Your task to perform on an android device: View the shopping cart on bestbuy. Search for dell xps on bestbuy, select the first entry, and add it to the cart. Image 0: 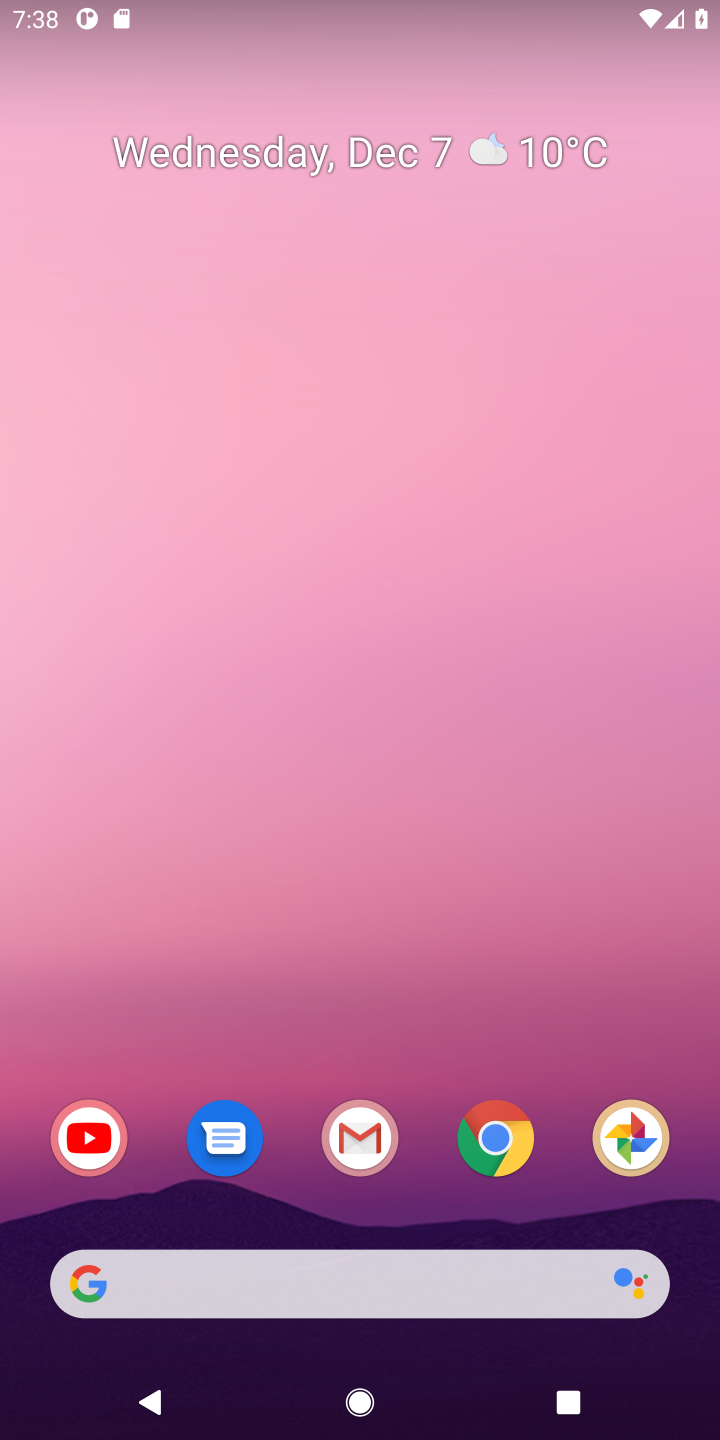
Step 0: press home button
Your task to perform on an android device: View the shopping cart on bestbuy. Search for dell xps on bestbuy, select the first entry, and add it to the cart. Image 1: 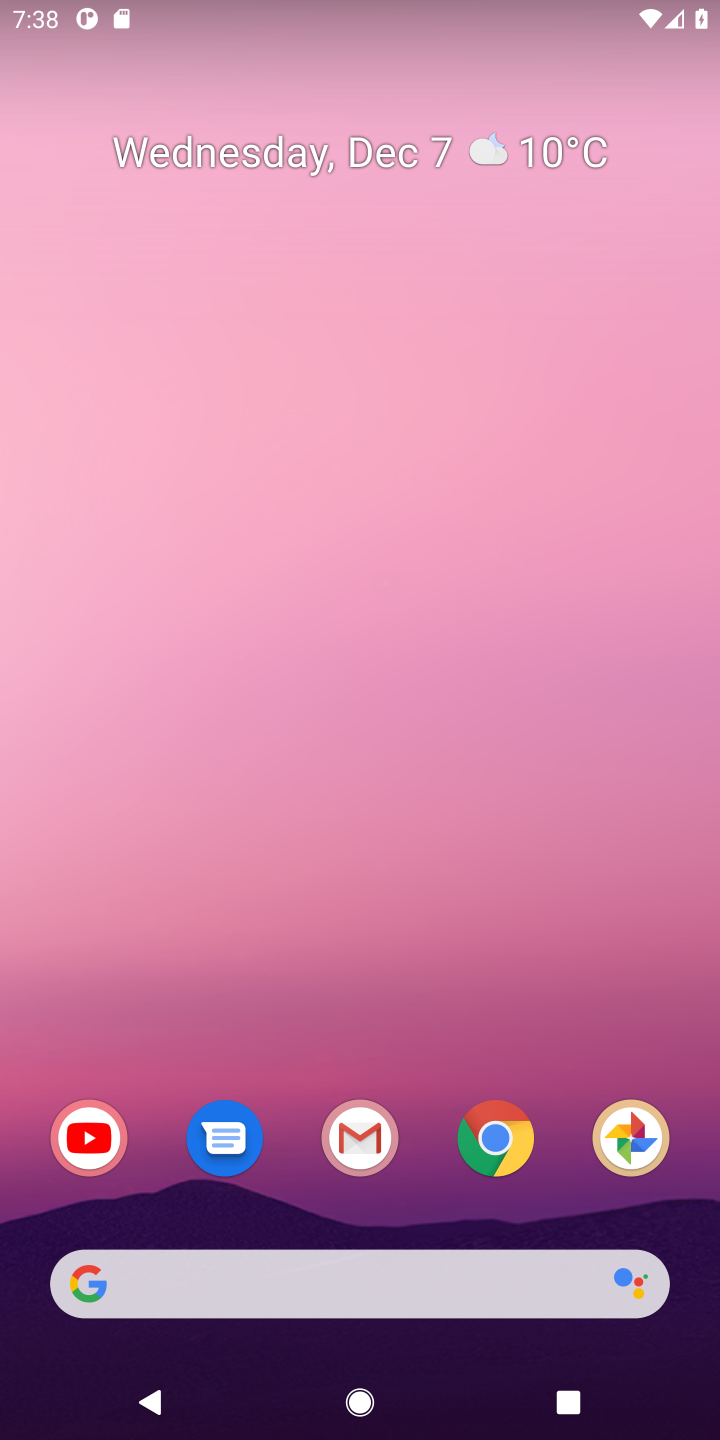
Step 1: click (247, 1277)
Your task to perform on an android device: View the shopping cart on bestbuy. Search for dell xps on bestbuy, select the first entry, and add it to the cart. Image 2: 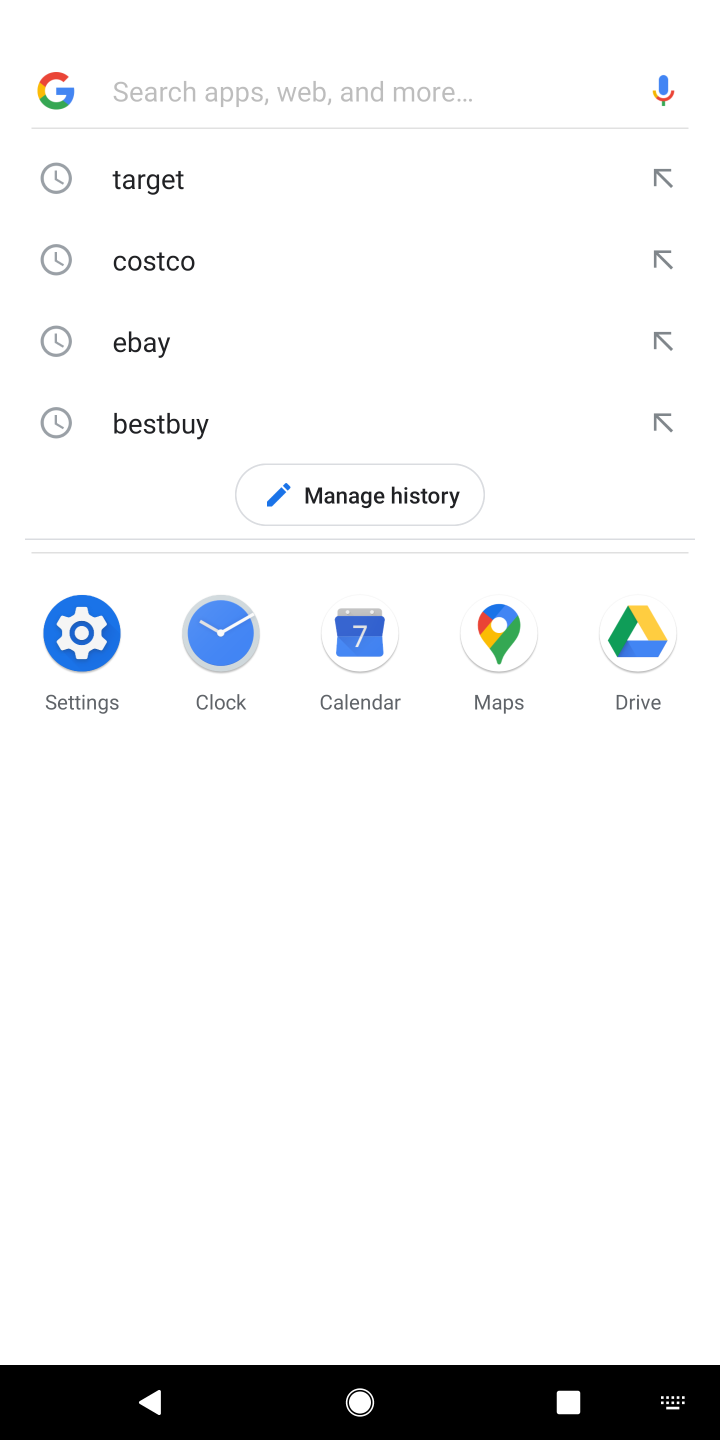
Step 2: type "bestbuy"
Your task to perform on an android device: View the shopping cart on bestbuy. Search for dell xps on bestbuy, select the first entry, and add it to the cart. Image 3: 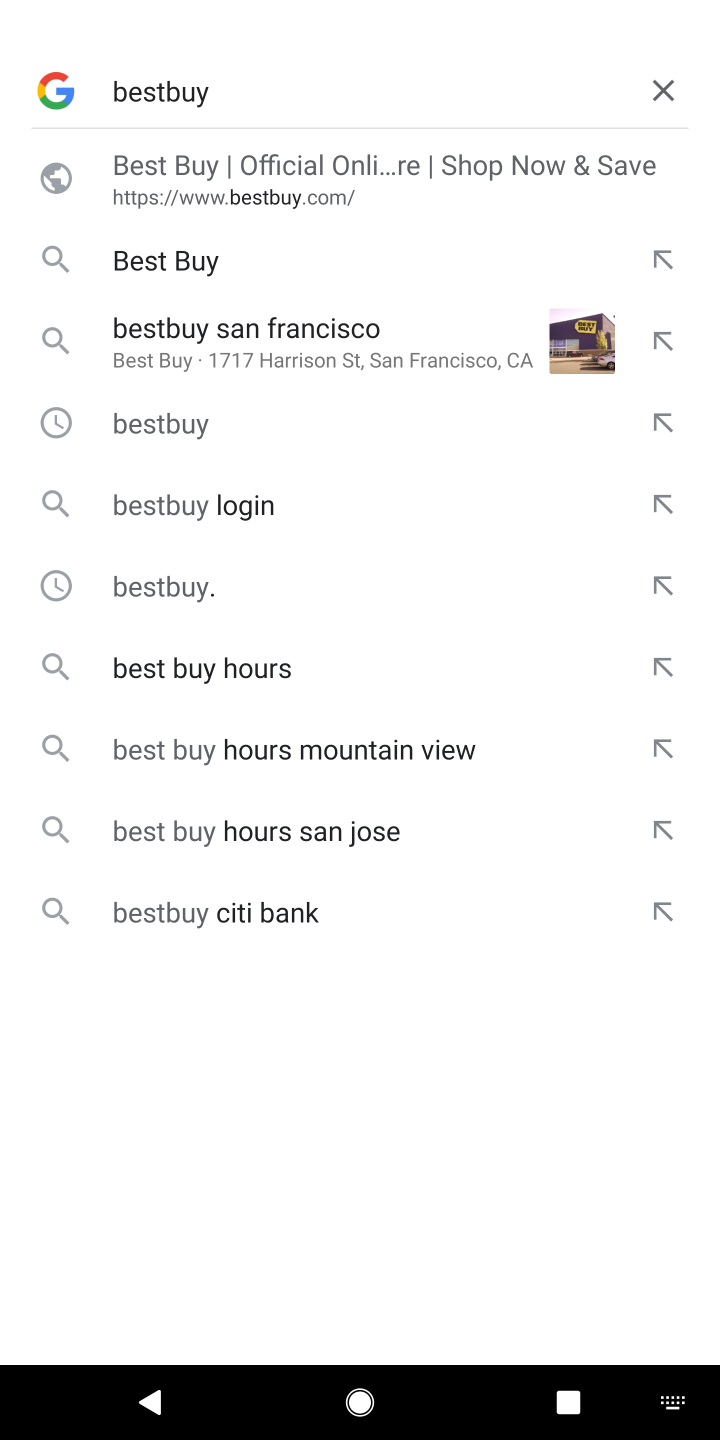
Step 3: press enter
Your task to perform on an android device: View the shopping cart on bestbuy. Search for dell xps on bestbuy, select the first entry, and add it to the cart. Image 4: 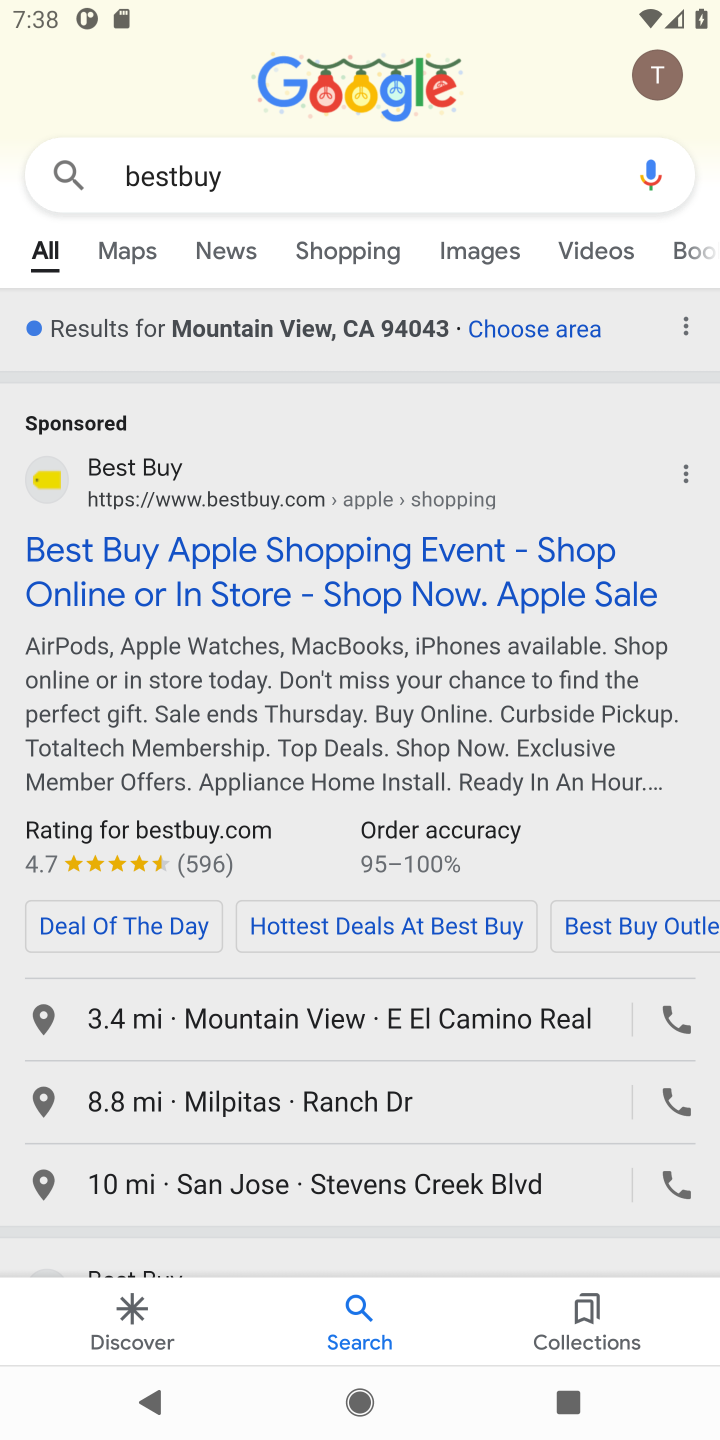
Step 4: click (291, 582)
Your task to perform on an android device: View the shopping cart on bestbuy. Search for dell xps on bestbuy, select the first entry, and add it to the cart. Image 5: 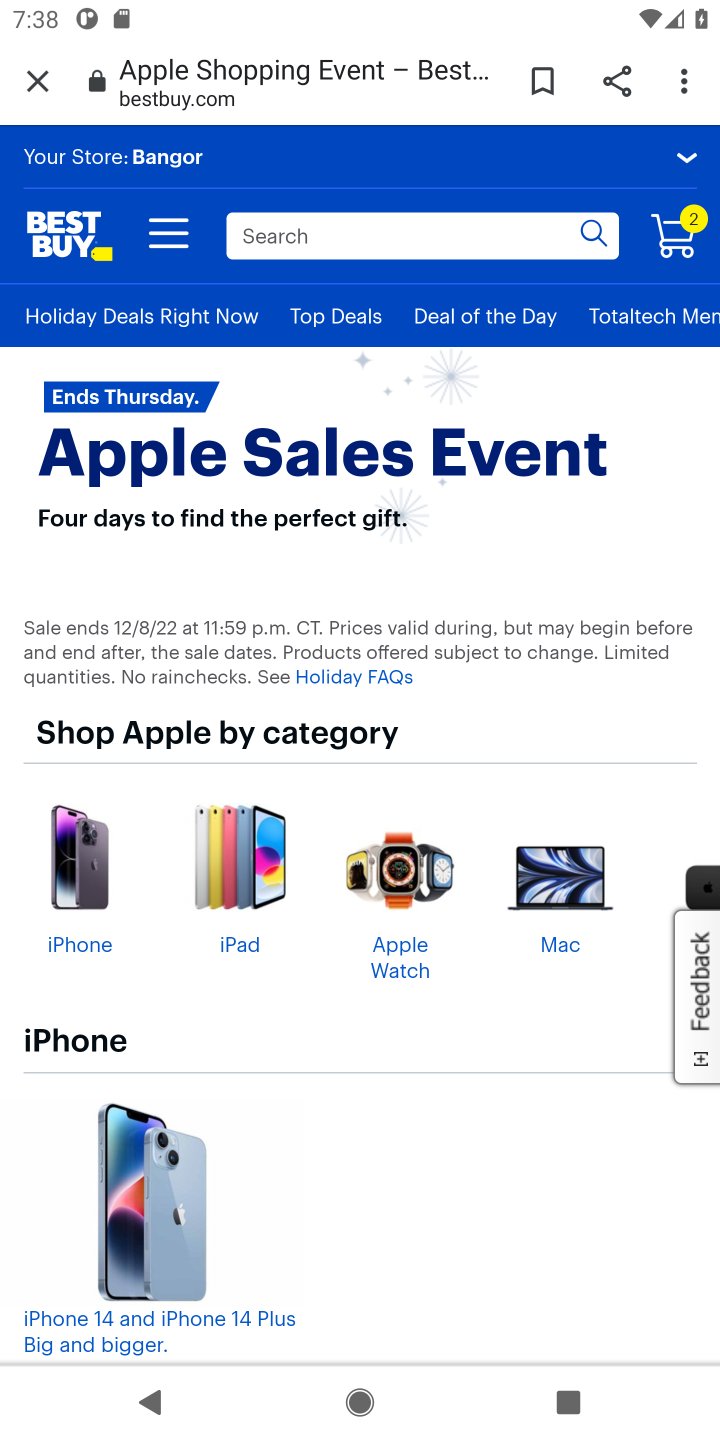
Step 5: click (671, 232)
Your task to perform on an android device: View the shopping cart on bestbuy. Search for dell xps on bestbuy, select the first entry, and add it to the cart. Image 6: 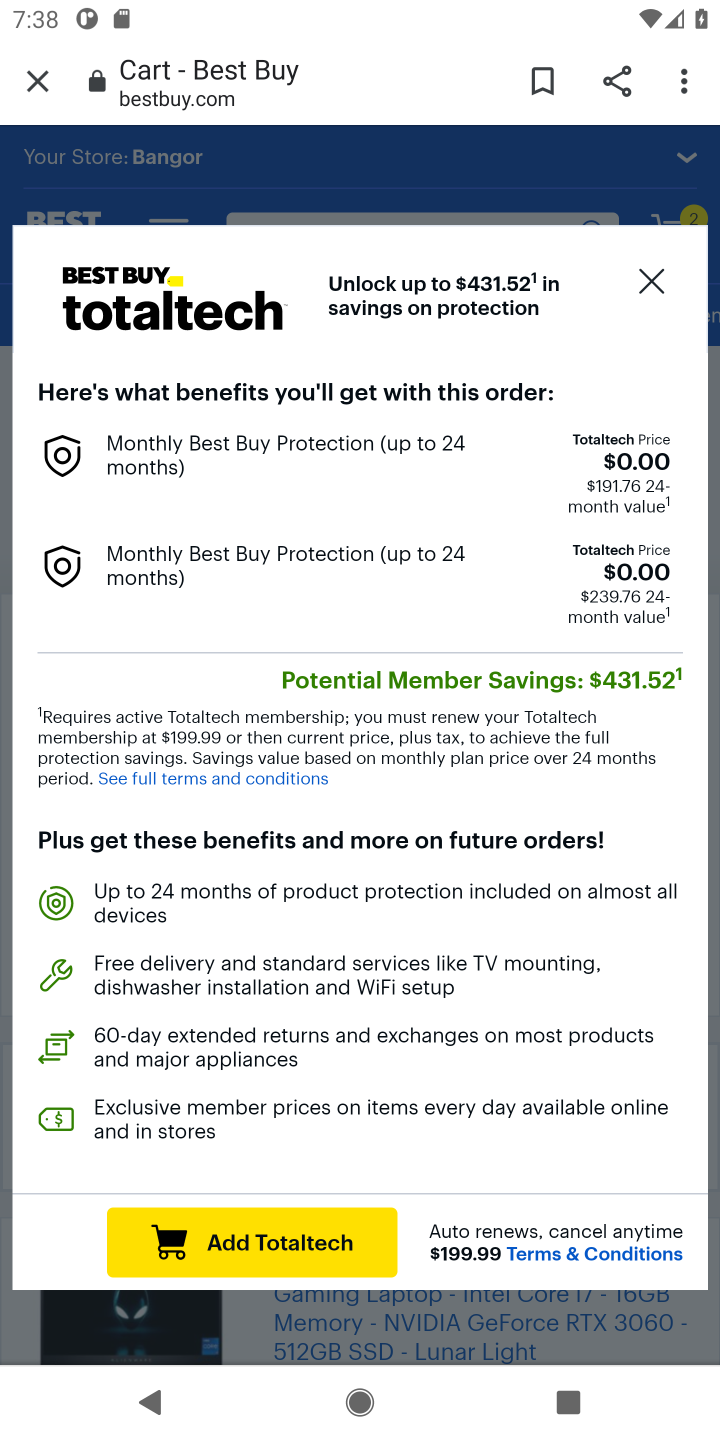
Step 6: click (651, 280)
Your task to perform on an android device: View the shopping cart on bestbuy. Search for dell xps on bestbuy, select the first entry, and add it to the cart. Image 7: 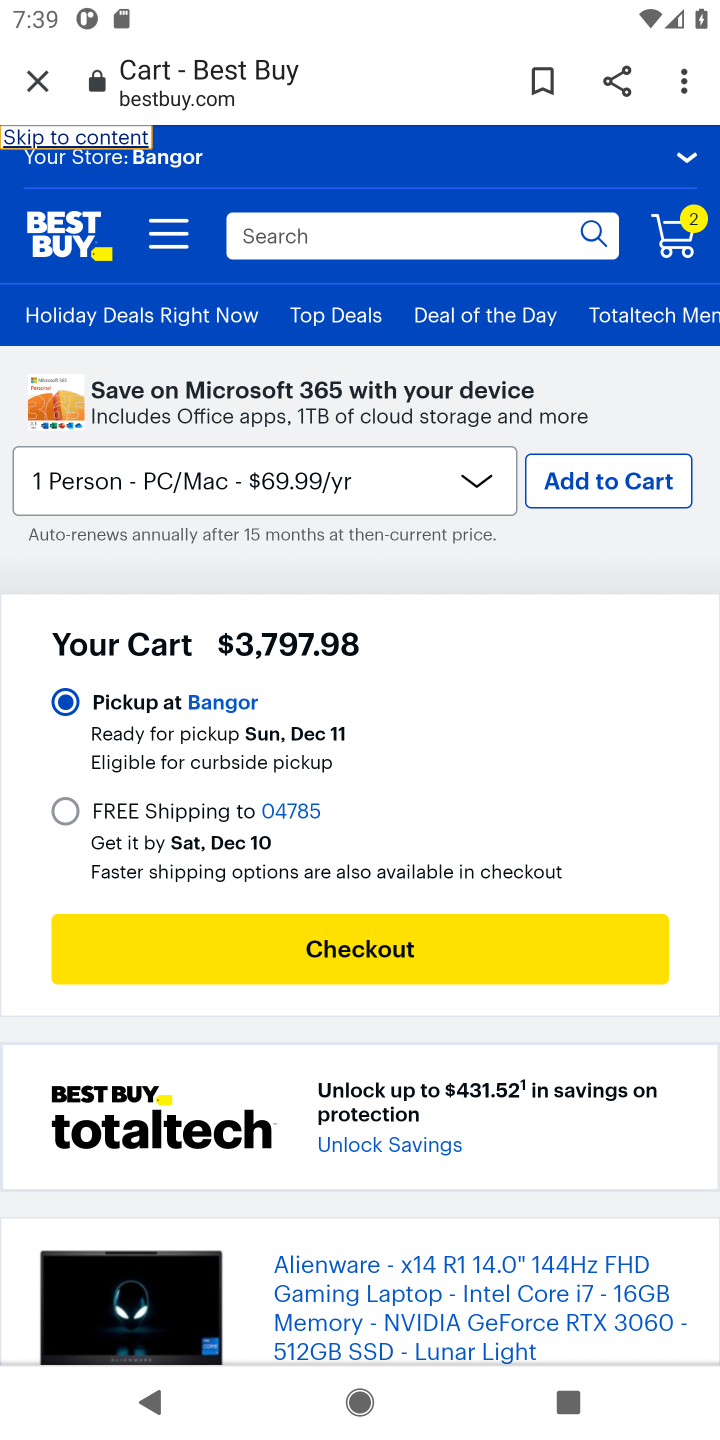
Step 7: click (366, 236)
Your task to perform on an android device: View the shopping cart on bestbuy. Search for dell xps on bestbuy, select the first entry, and add it to the cart. Image 8: 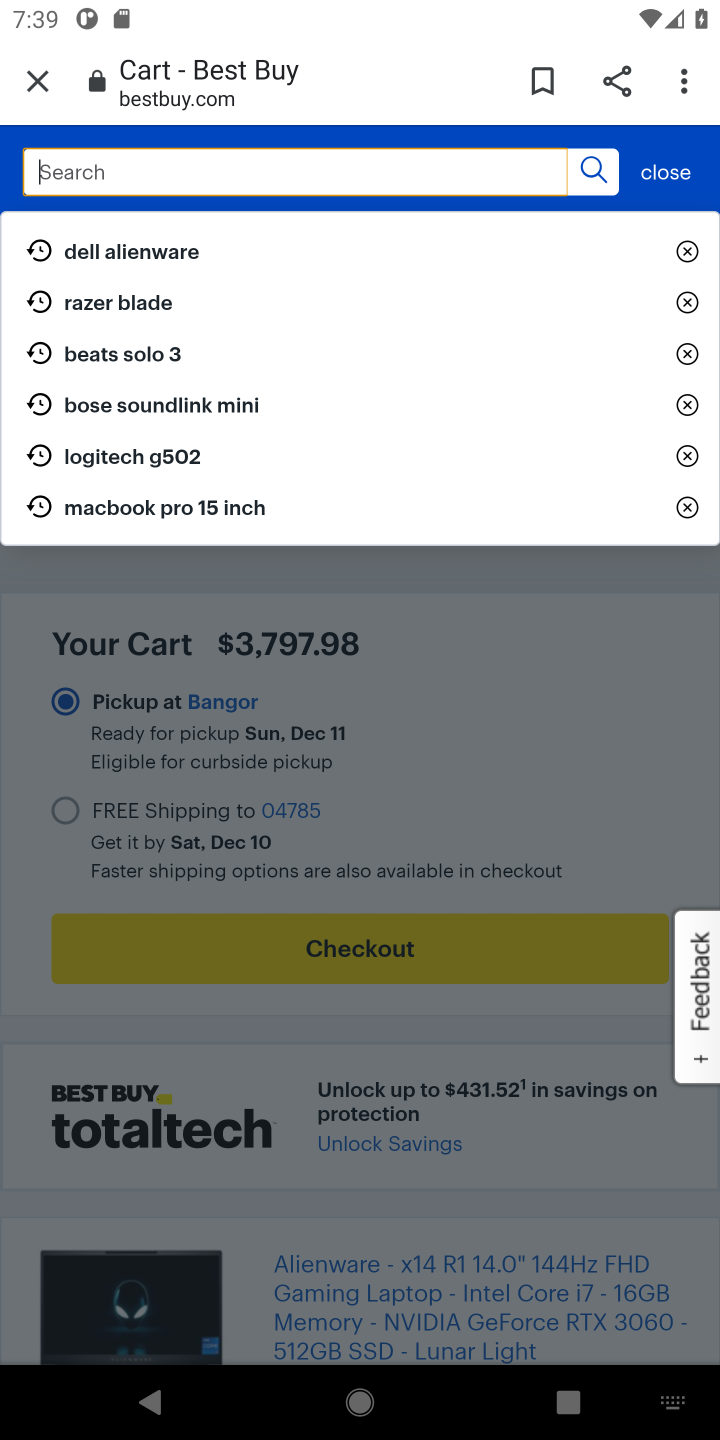
Step 8: press enter
Your task to perform on an android device: View the shopping cart on bestbuy. Search for dell xps on bestbuy, select the first entry, and add it to the cart. Image 9: 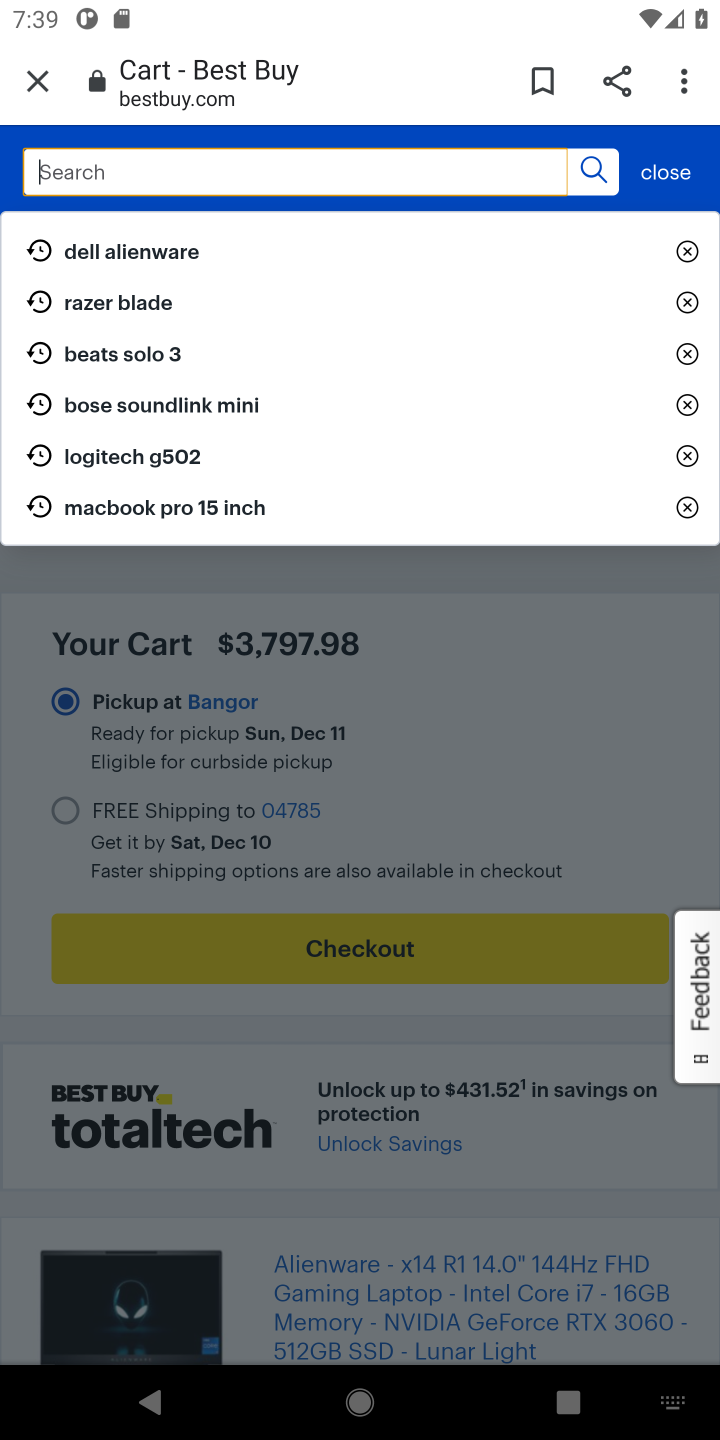
Step 9: type "dell xps"
Your task to perform on an android device: View the shopping cart on bestbuy. Search for dell xps on bestbuy, select the first entry, and add it to the cart. Image 10: 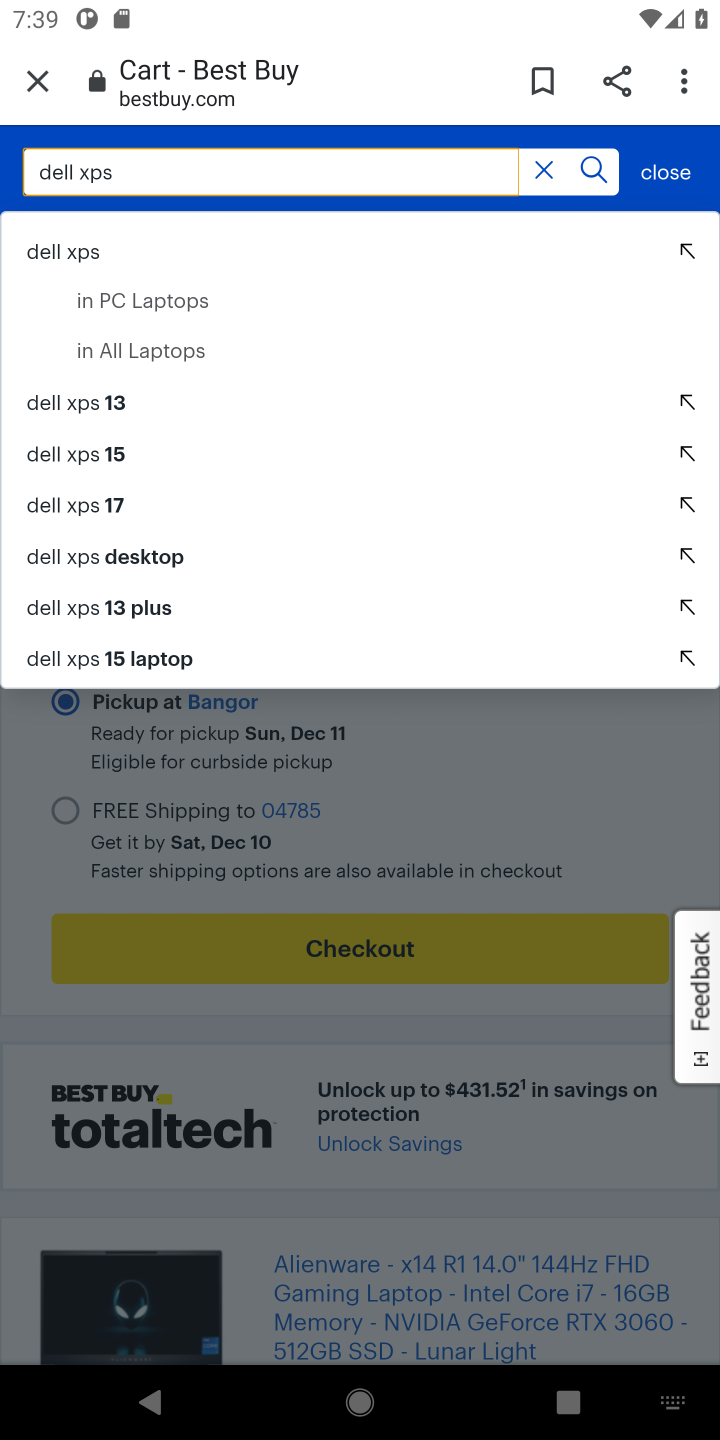
Step 10: click (580, 163)
Your task to perform on an android device: View the shopping cart on bestbuy. Search for dell xps on bestbuy, select the first entry, and add it to the cart. Image 11: 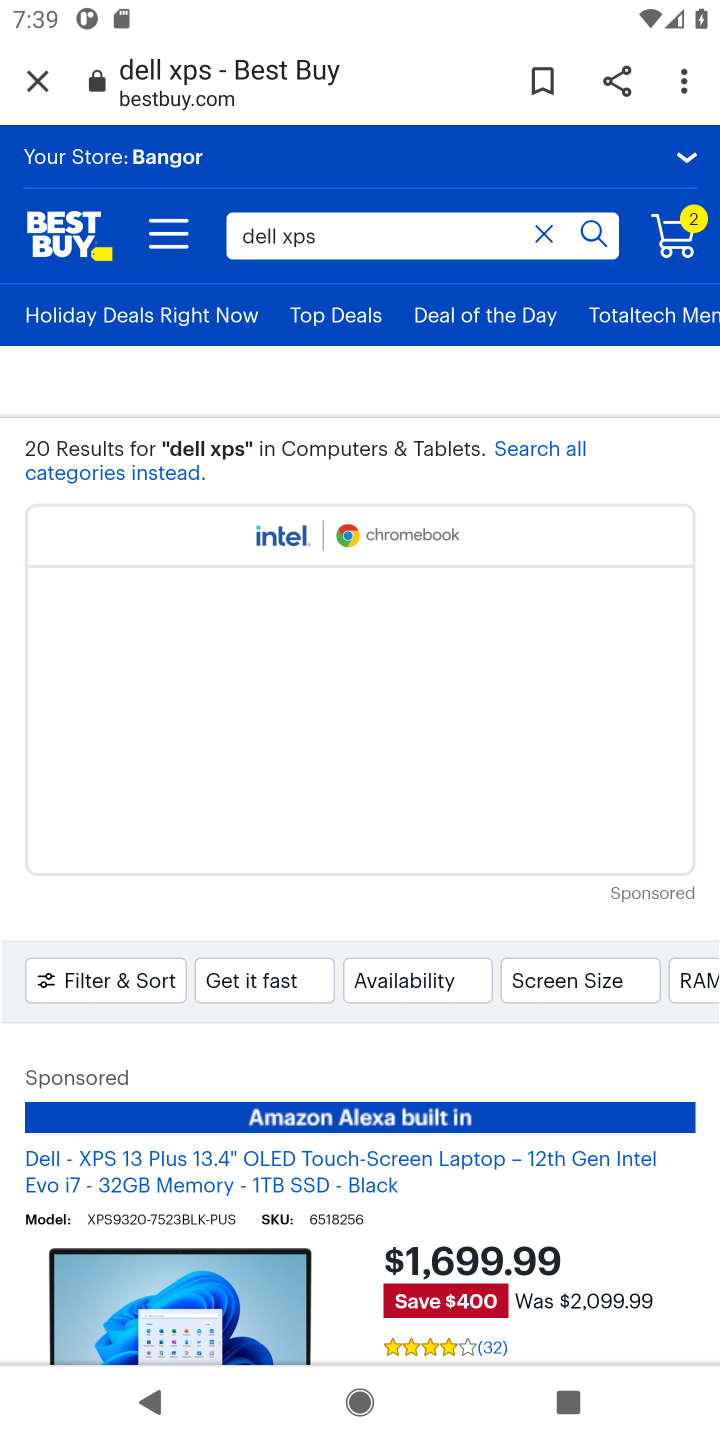
Step 11: drag from (456, 1147) to (510, 594)
Your task to perform on an android device: View the shopping cart on bestbuy. Search for dell xps on bestbuy, select the first entry, and add it to the cart. Image 12: 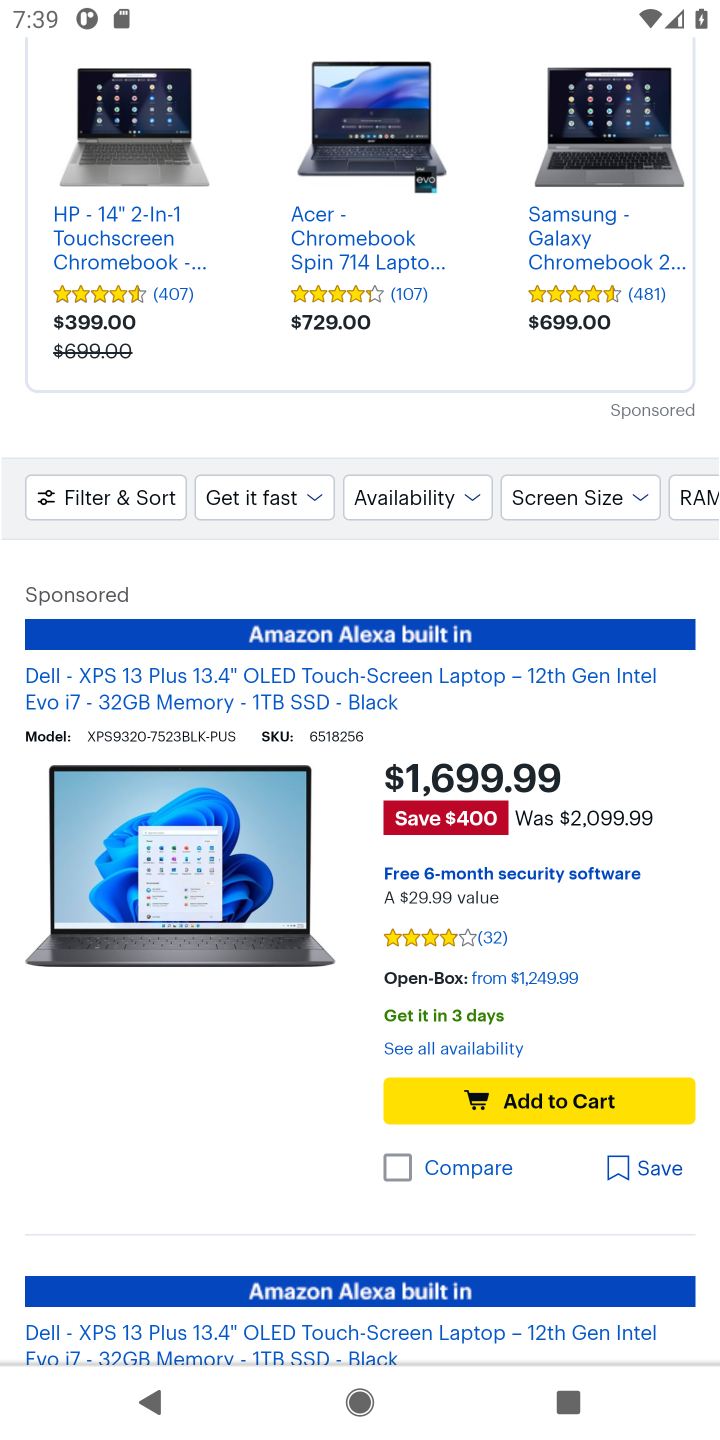
Step 12: click (531, 1103)
Your task to perform on an android device: View the shopping cart on bestbuy. Search for dell xps on bestbuy, select the first entry, and add it to the cart. Image 13: 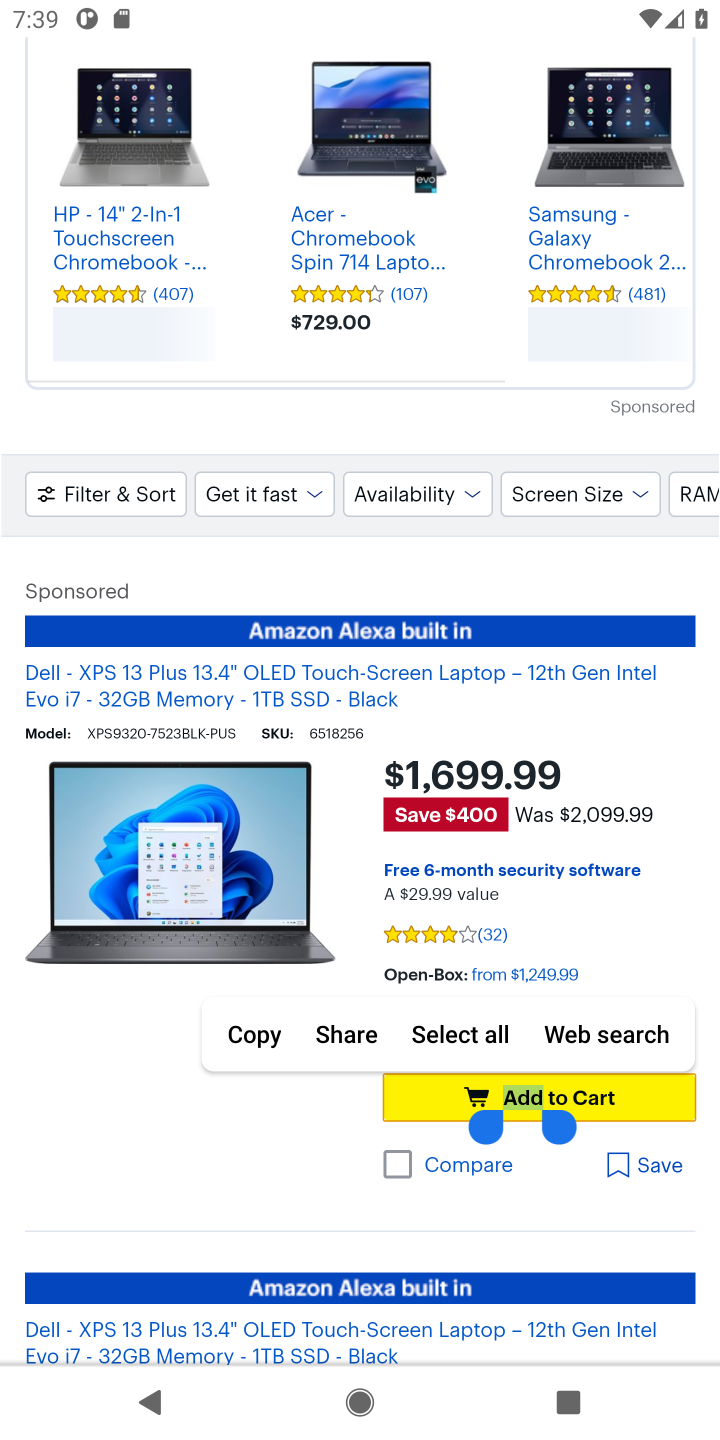
Step 13: click (608, 1113)
Your task to perform on an android device: View the shopping cart on bestbuy. Search for dell xps on bestbuy, select the first entry, and add it to the cart. Image 14: 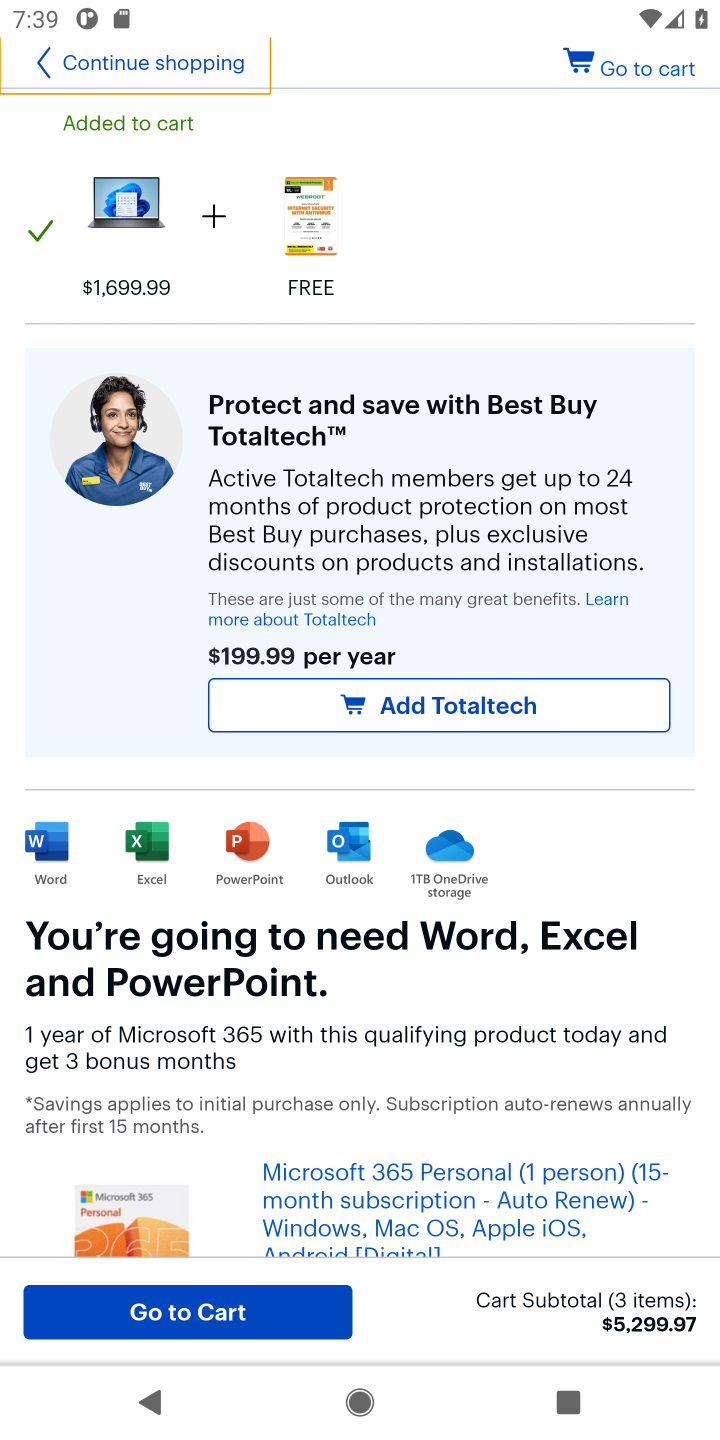
Step 14: task complete